Your task to perform on an android device: move a message to another label in the gmail app Image 0: 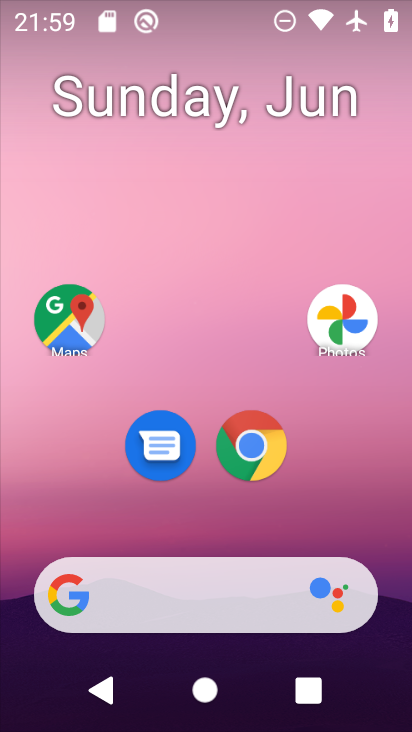
Step 0: drag from (331, 505) to (403, 67)
Your task to perform on an android device: move a message to another label in the gmail app Image 1: 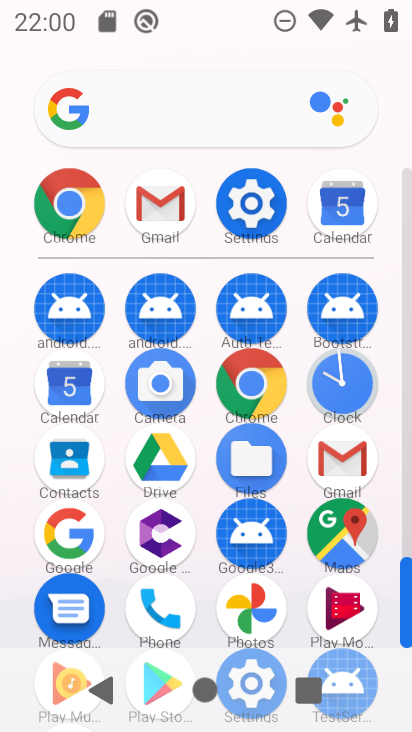
Step 1: click (161, 213)
Your task to perform on an android device: move a message to another label in the gmail app Image 2: 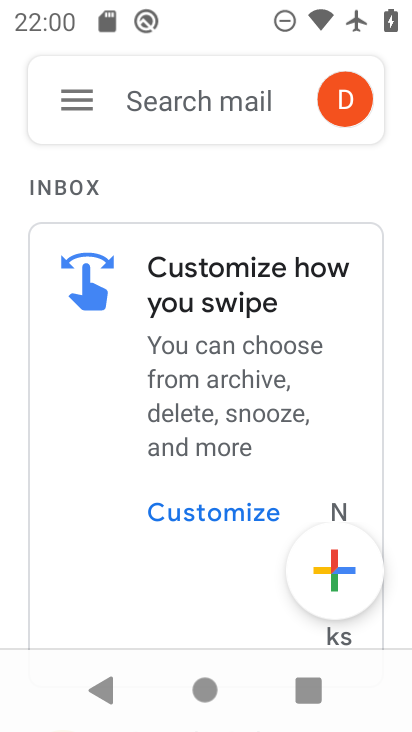
Step 2: drag from (212, 274) to (13, 317)
Your task to perform on an android device: move a message to another label in the gmail app Image 3: 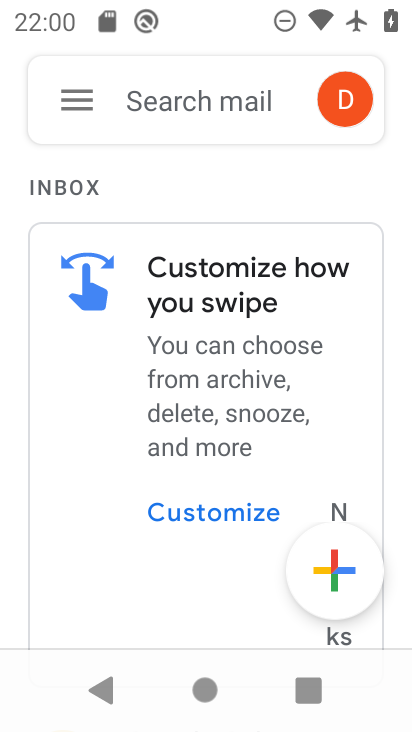
Step 3: click (75, 108)
Your task to perform on an android device: move a message to another label in the gmail app Image 4: 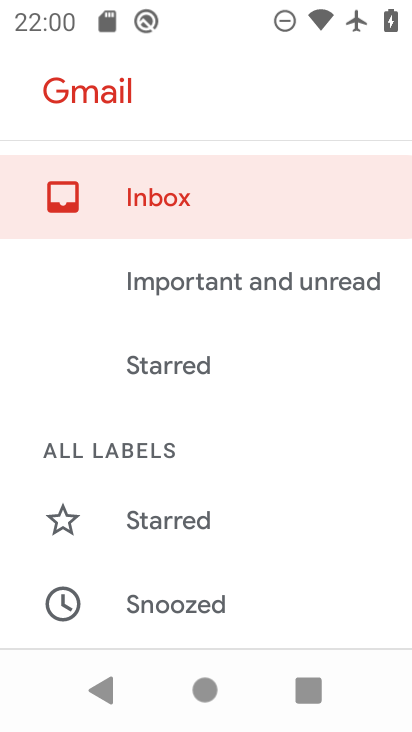
Step 4: drag from (348, 618) to (393, 278)
Your task to perform on an android device: move a message to another label in the gmail app Image 5: 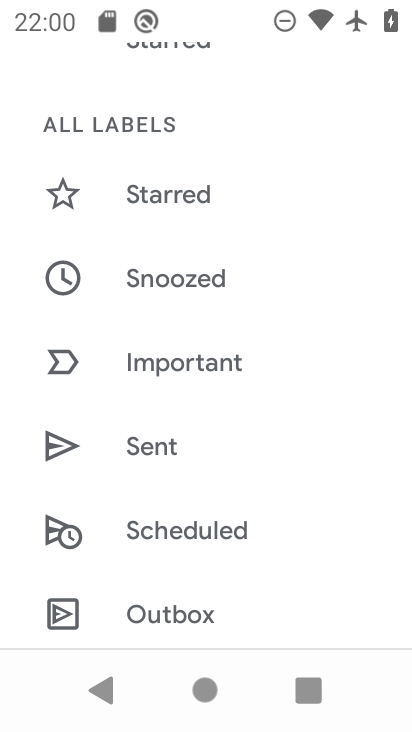
Step 5: drag from (324, 630) to (310, 355)
Your task to perform on an android device: move a message to another label in the gmail app Image 6: 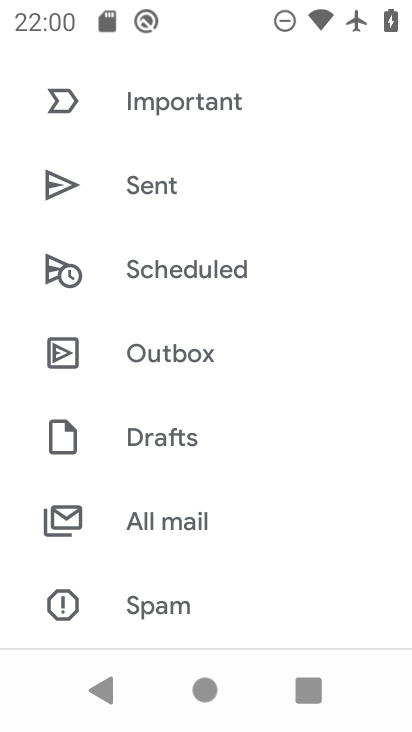
Step 6: click (208, 523)
Your task to perform on an android device: move a message to another label in the gmail app Image 7: 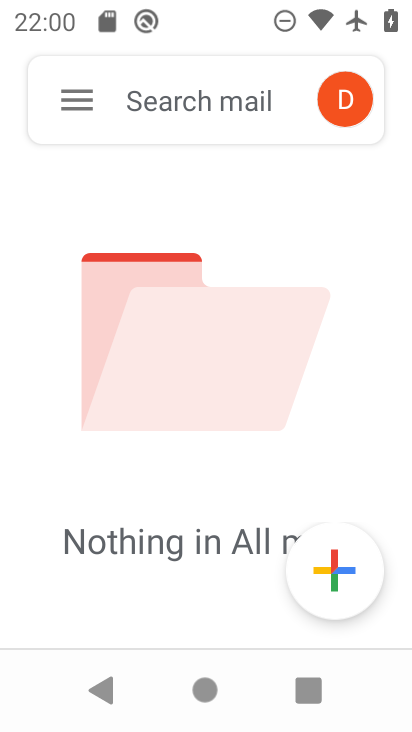
Step 7: task complete